Your task to perform on an android device: See recent photos Image 0: 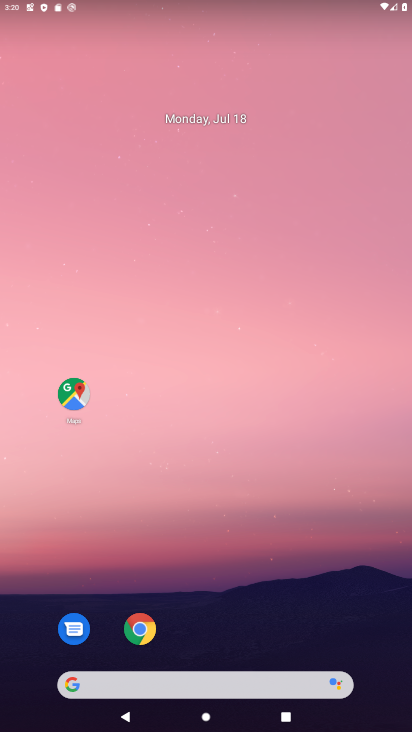
Step 0: drag from (221, 496) to (224, 201)
Your task to perform on an android device: See recent photos Image 1: 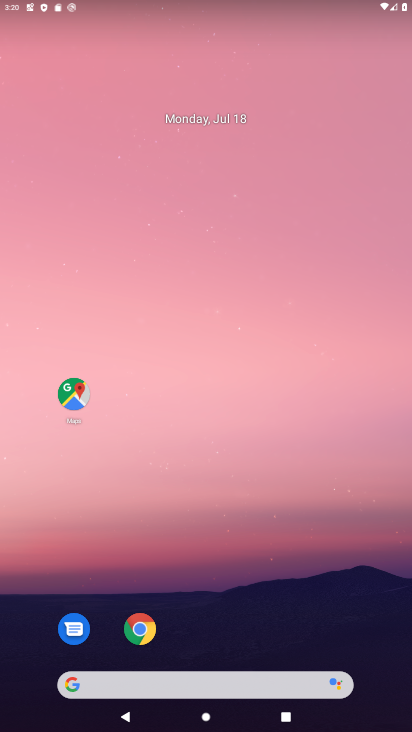
Step 1: drag from (218, 645) to (233, 13)
Your task to perform on an android device: See recent photos Image 2: 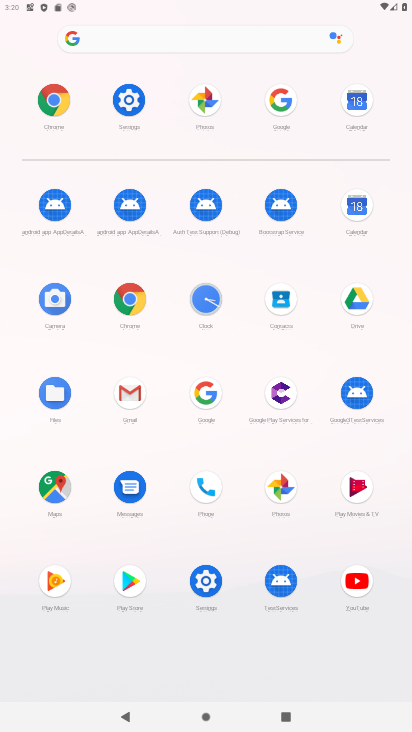
Step 2: click (282, 489)
Your task to perform on an android device: See recent photos Image 3: 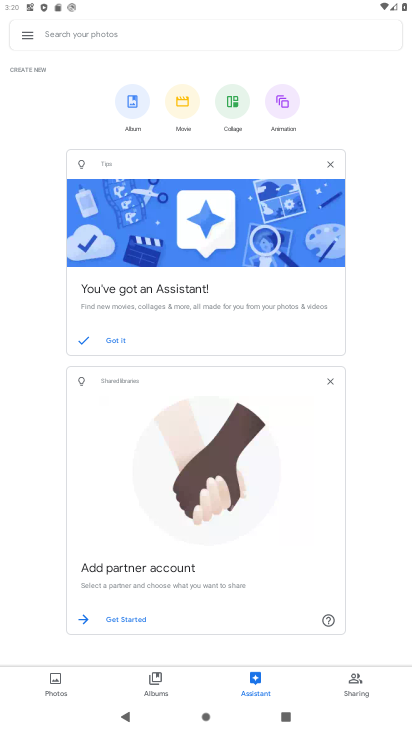
Step 3: click (54, 690)
Your task to perform on an android device: See recent photos Image 4: 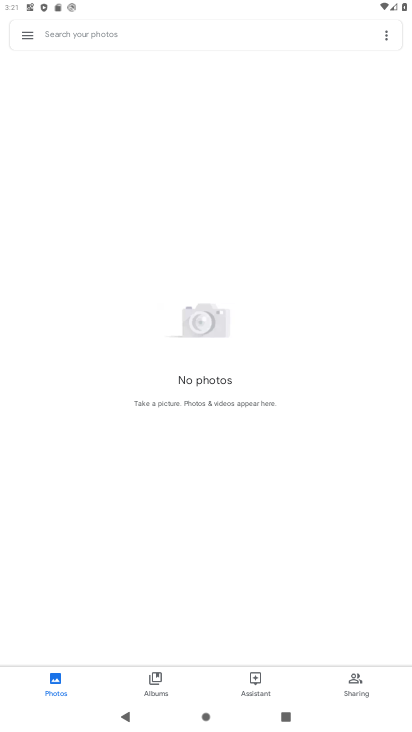
Step 4: task complete